Your task to perform on an android device: change the clock style Image 0: 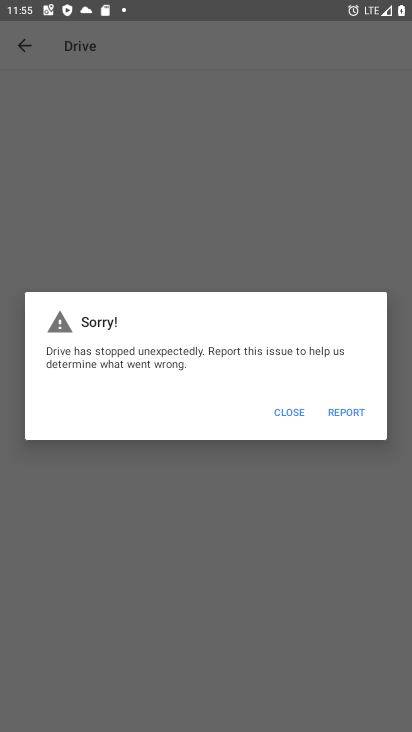
Step 0: press home button
Your task to perform on an android device: change the clock style Image 1: 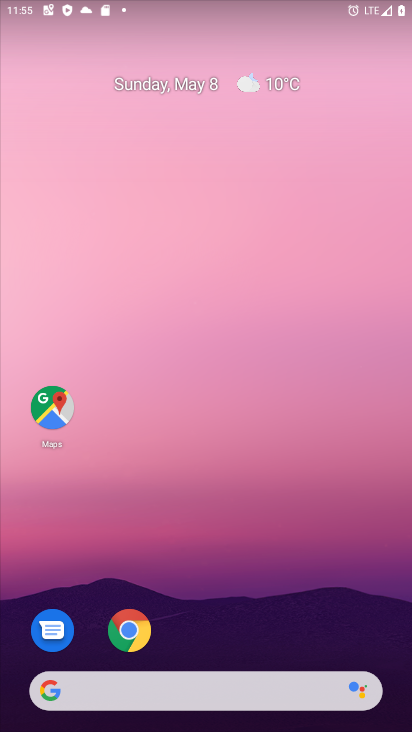
Step 1: drag from (343, 618) to (187, 20)
Your task to perform on an android device: change the clock style Image 2: 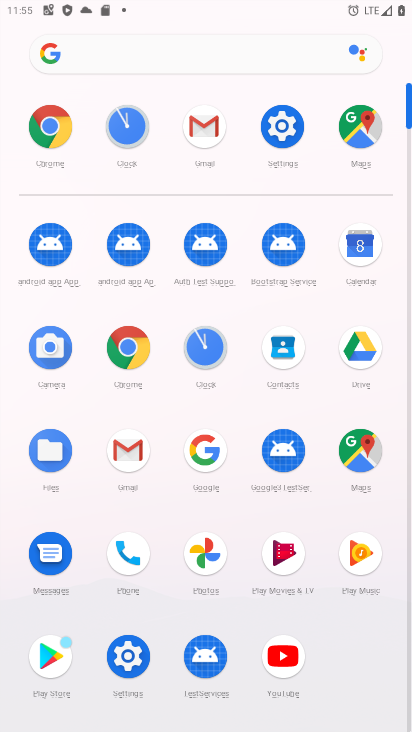
Step 2: click (137, 130)
Your task to perform on an android device: change the clock style Image 3: 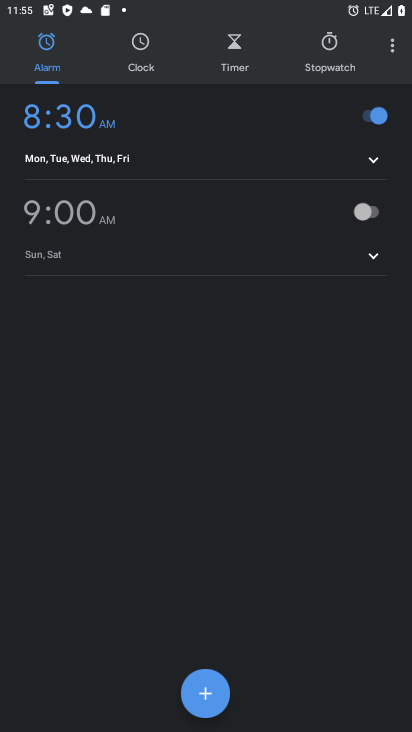
Step 3: click (387, 49)
Your task to perform on an android device: change the clock style Image 4: 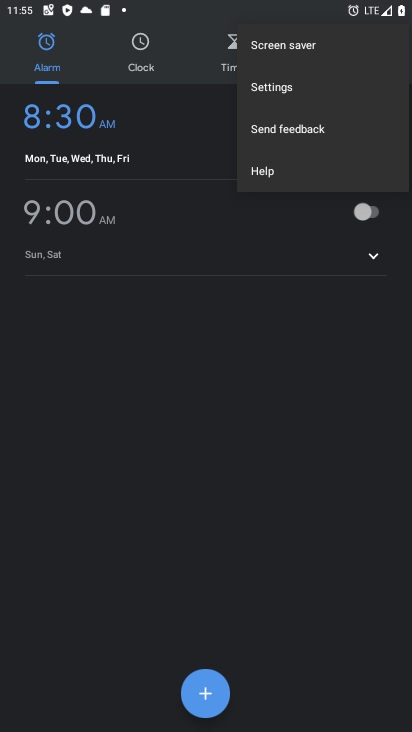
Step 4: click (306, 85)
Your task to perform on an android device: change the clock style Image 5: 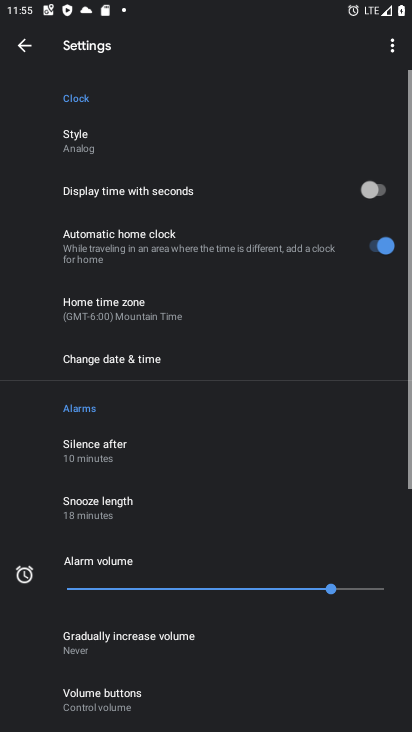
Step 5: click (159, 152)
Your task to perform on an android device: change the clock style Image 6: 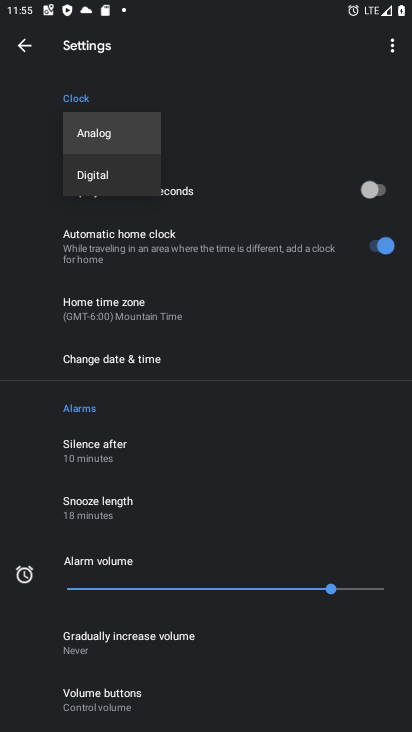
Step 6: click (121, 167)
Your task to perform on an android device: change the clock style Image 7: 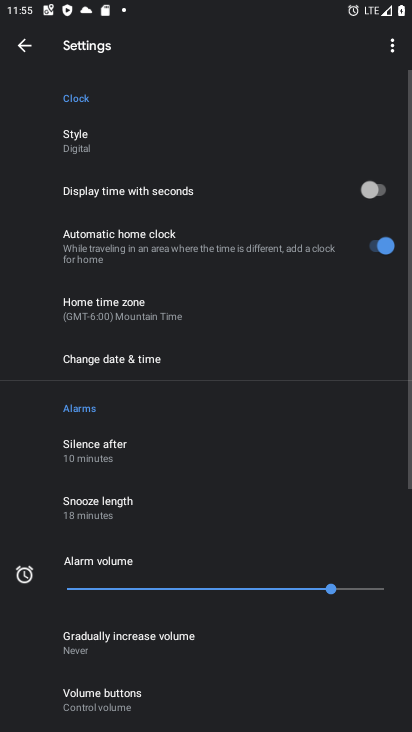
Step 7: task complete